Your task to perform on an android device: read, delete, or share a saved page in the chrome app Image 0: 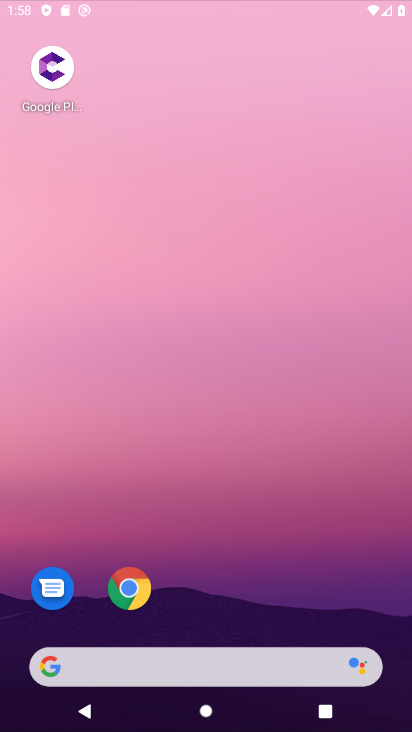
Step 0: press back button
Your task to perform on an android device: read, delete, or share a saved page in the chrome app Image 1: 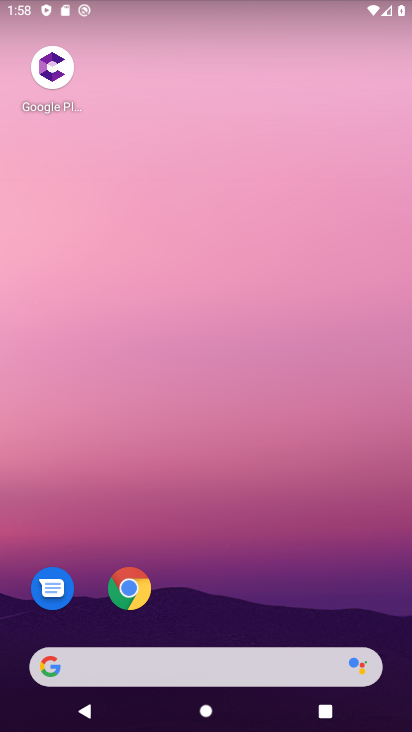
Step 1: press home button
Your task to perform on an android device: read, delete, or share a saved page in the chrome app Image 2: 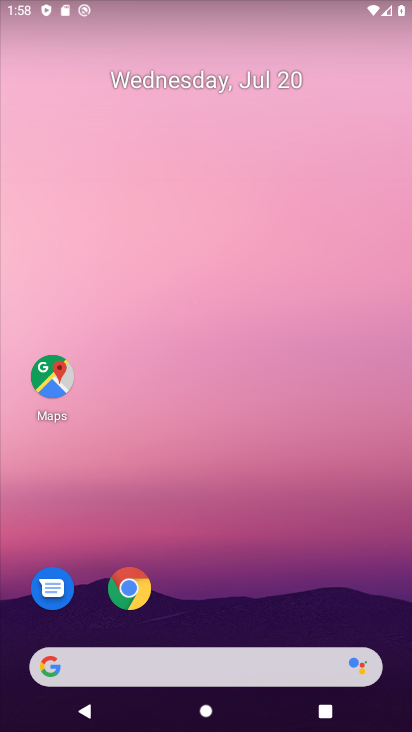
Step 2: drag from (195, 590) to (104, 291)
Your task to perform on an android device: read, delete, or share a saved page in the chrome app Image 3: 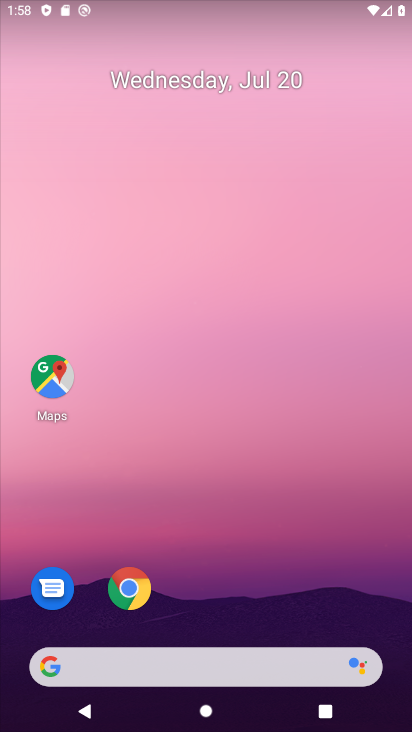
Step 3: drag from (242, 638) to (134, 108)
Your task to perform on an android device: read, delete, or share a saved page in the chrome app Image 4: 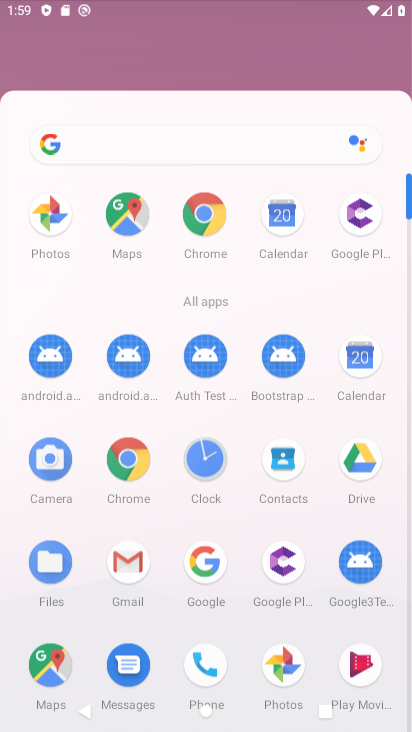
Step 4: drag from (191, 388) to (129, 12)
Your task to perform on an android device: read, delete, or share a saved page in the chrome app Image 5: 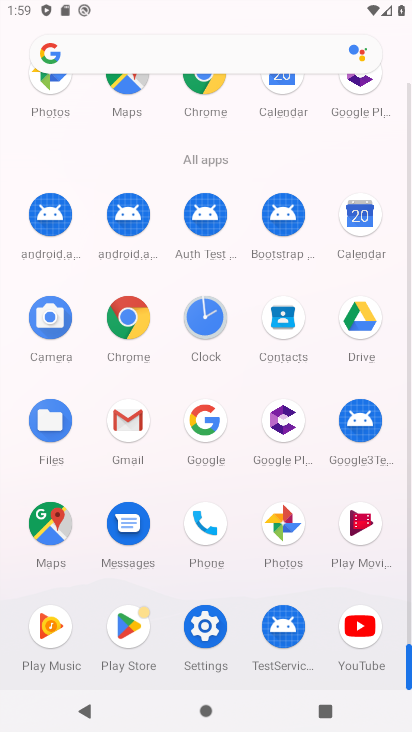
Step 5: click (123, 311)
Your task to perform on an android device: read, delete, or share a saved page in the chrome app Image 6: 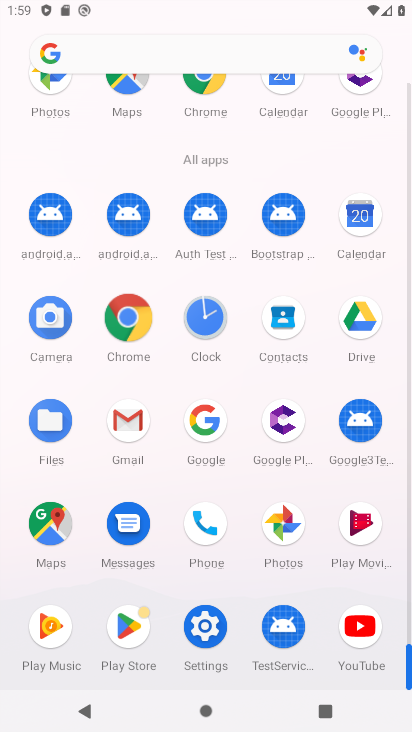
Step 6: click (126, 311)
Your task to perform on an android device: read, delete, or share a saved page in the chrome app Image 7: 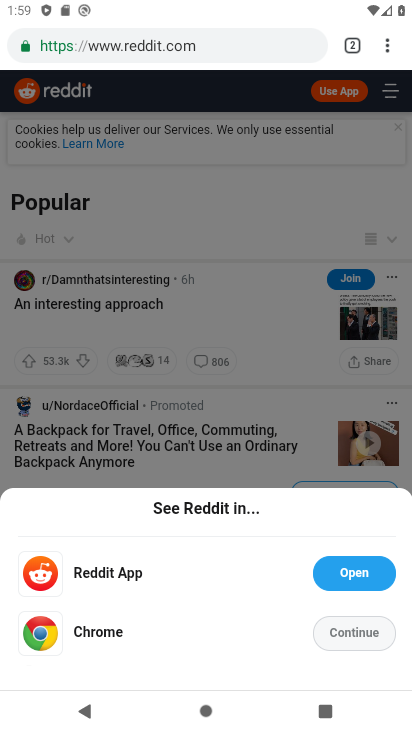
Step 7: press back button
Your task to perform on an android device: read, delete, or share a saved page in the chrome app Image 8: 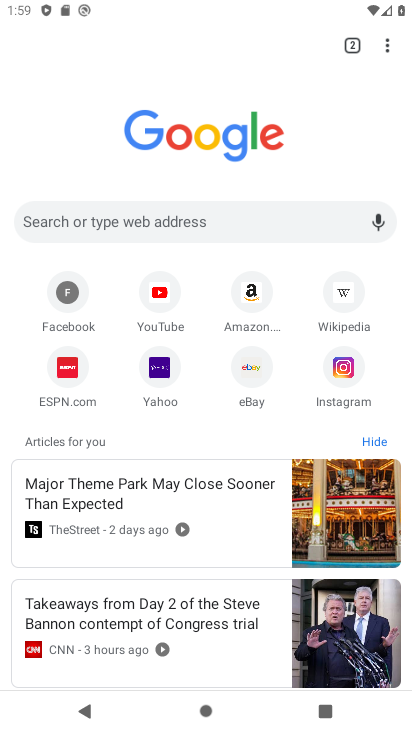
Step 8: drag from (390, 50) to (226, 292)
Your task to perform on an android device: read, delete, or share a saved page in the chrome app Image 9: 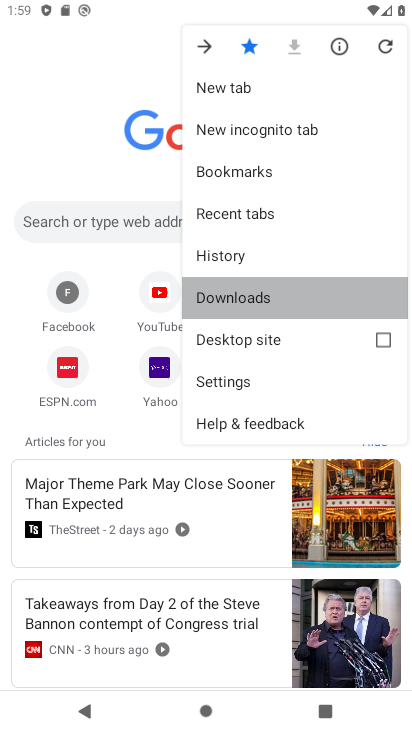
Step 9: click (228, 294)
Your task to perform on an android device: read, delete, or share a saved page in the chrome app Image 10: 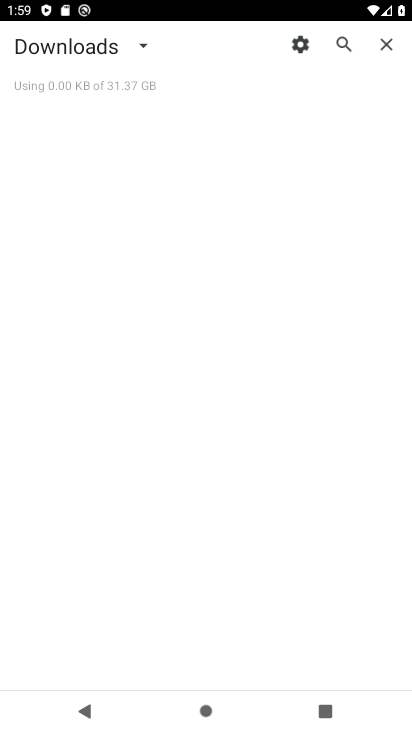
Step 10: click (140, 44)
Your task to perform on an android device: read, delete, or share a saved page in the chrome app Image 11: 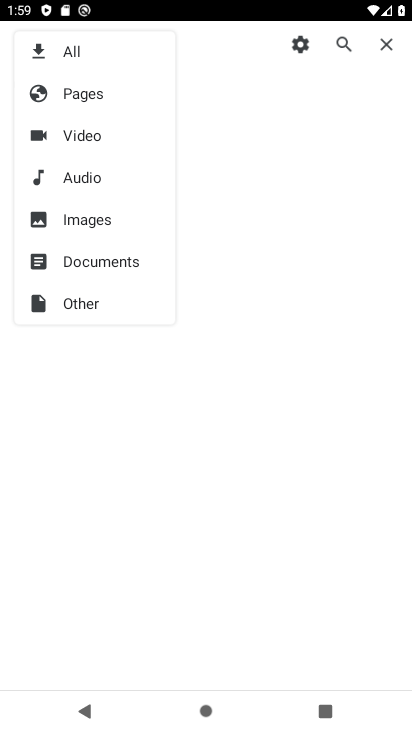
Step 11: click (84, 130)
Your task to perform on an android device: read, delete, or share a saved page in the chrome app Image 12: 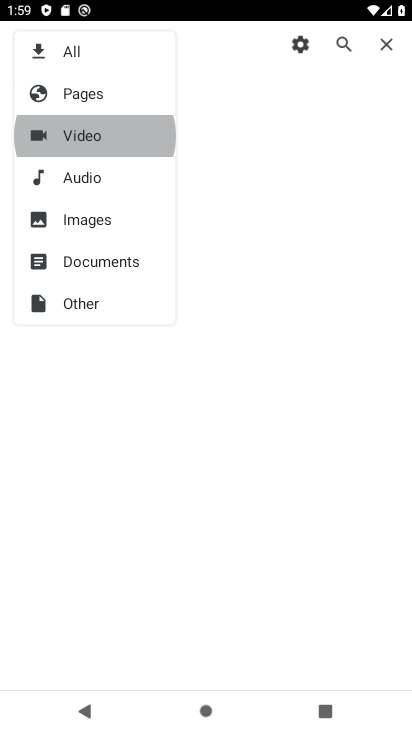
Step 12: click (84, 130)
Your task to perform on an android device: read, delete, or share a saved page in the chrome app Image 13: 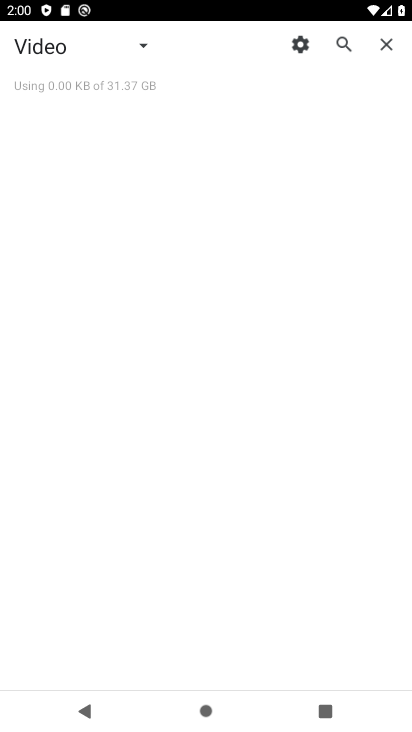
Step 13: task complete